Your task to perform on an android device: delete a single message in the gmail app Image 0: 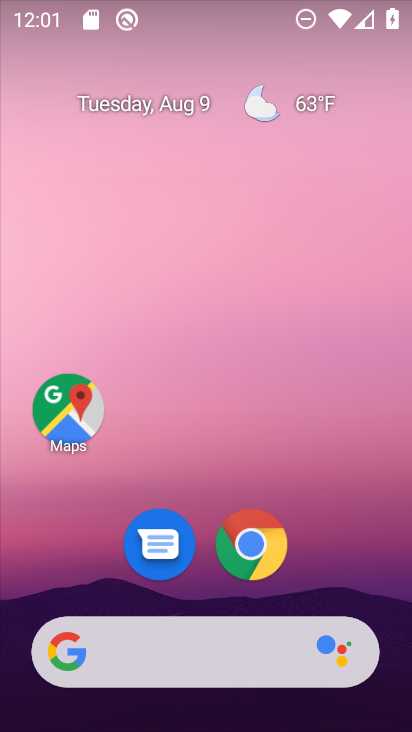
Step 0: drag from (176, 663) to (191, 265)
Your task to perform on an android device: delete a single message in the gmail app Image 1: 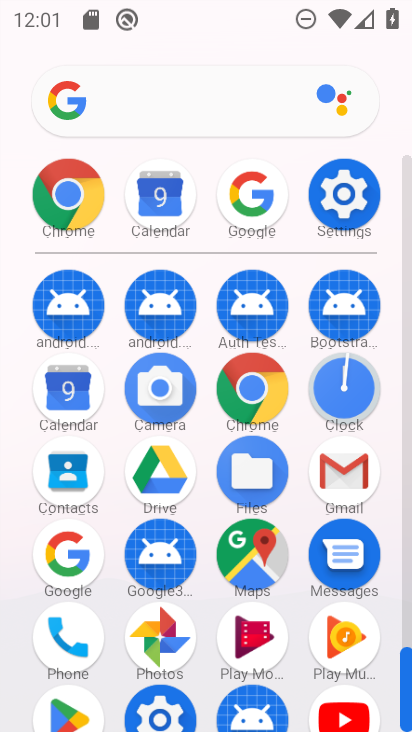
Step 1: click (342, 468)
Your task to perform on an android device: delete a single message in the gmail app Image 2: 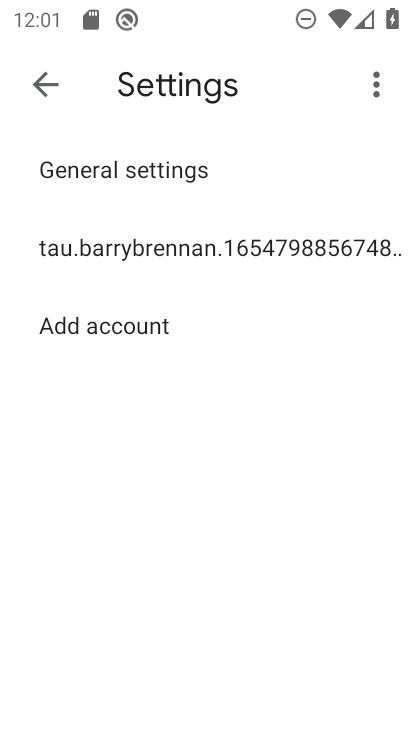
Step 2: press back button
Your task to perform on an android device: delete a single message in the gmail app Image 3: 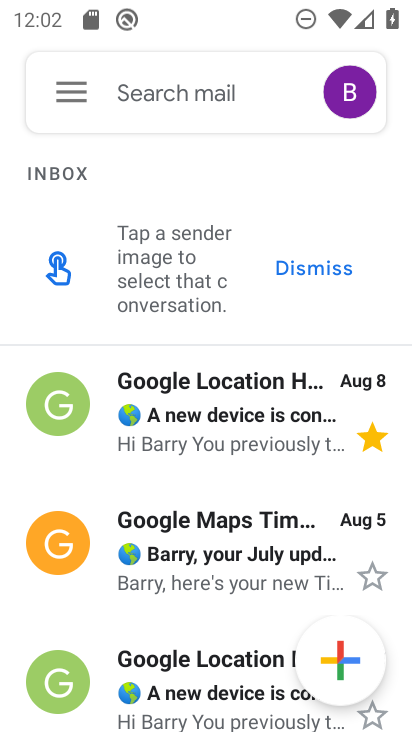
Step 3: click (206, 395)
Your task to perform on an android device: delete a single message in the gmail app Image 4: 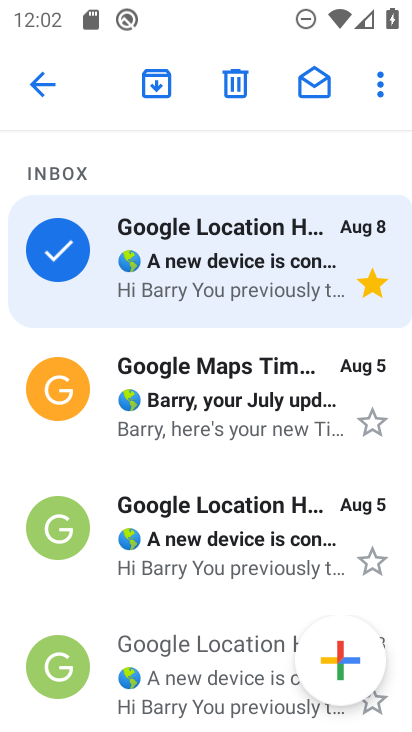
Step 4: click (226, 95)
Your task to perform on an android device: delete a single message in the gmail app Image 5: 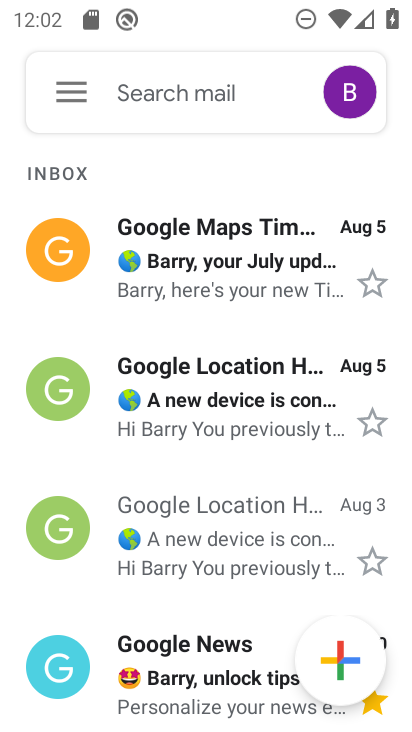
Step 5: task complete